Your task to perform on an android device: Search for pizza restaurants on Maps Image 0: 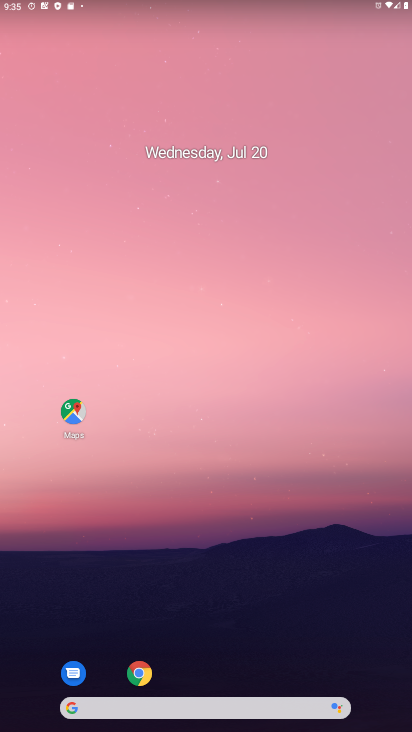
Step 0: drag from (227, 729) to (199, 292)
Your task to perform on an android device: Search for pizza restaurants on Maps Image 1: 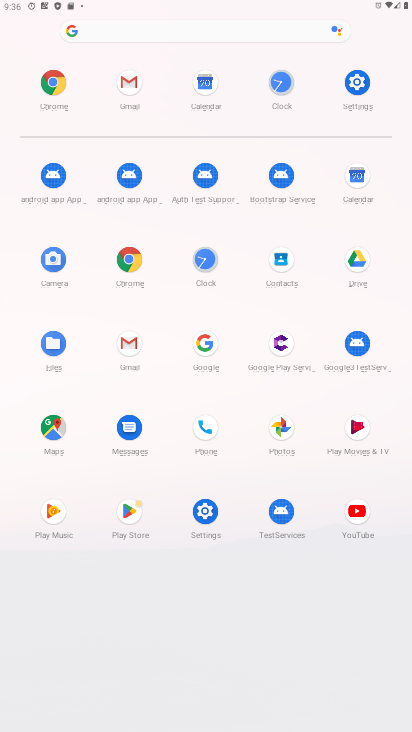
Step 1: click (51, 421)
Your task to perform on an android device: Search for pizza restaurants on Maps Image 2: 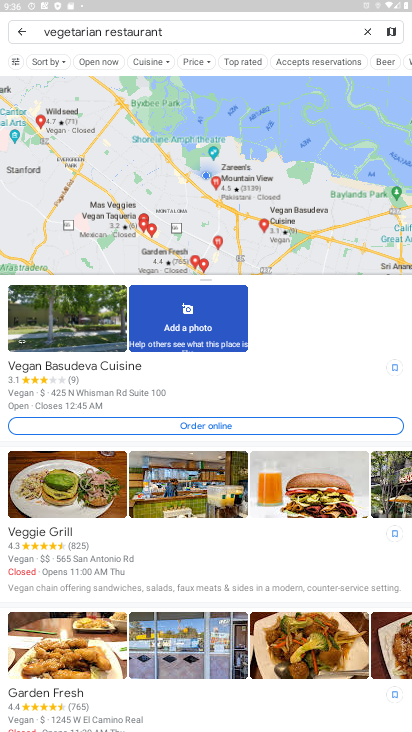
Step 2: click (366, 27)
Your task to perform on an android device: Search for pizza restaurants on Maps Image 3: 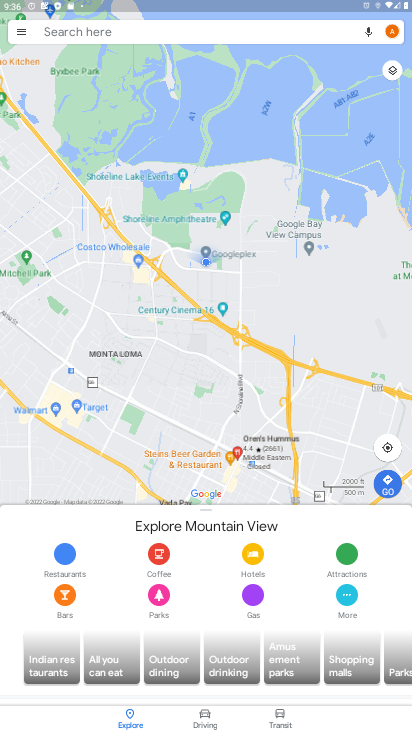
Step 3: click (158, 33)
Your task to perform on an android device: Search for pizza restaurants on Maps Image 4: 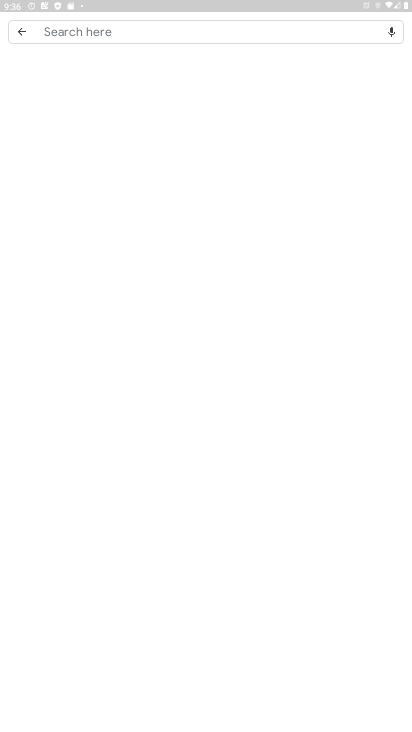
Step 4: click (171, 30)
Your task to perform on an android device: Search for pizza restaurants on Maps Image 5: 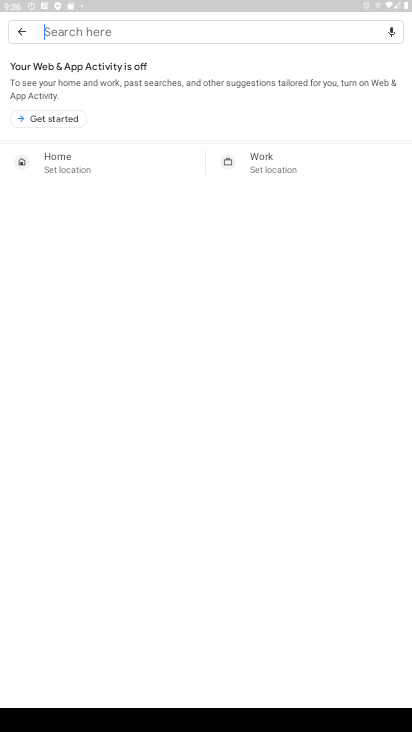
Step 5: type "seafood restaurants"
Your task to perform on an android device: Search for pizza restaurants on Maps Image 6: 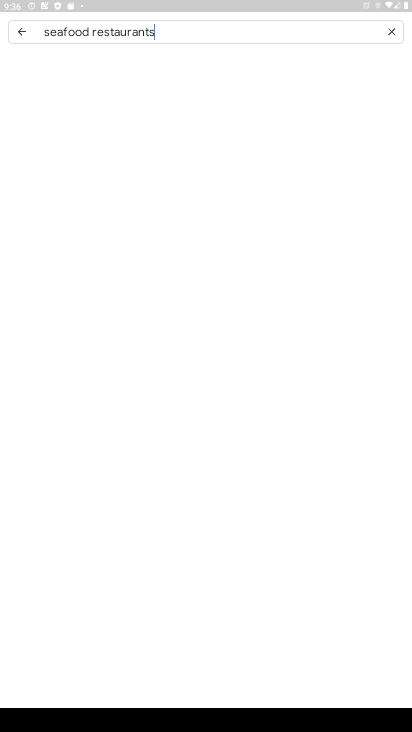
Step 6: type ""
Your task to perform on an android device: Search for pizza restaurants on Maps Image 7: 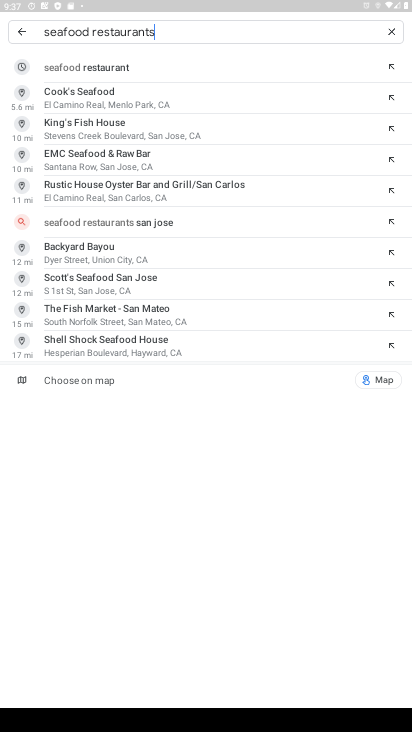
Step 7: click (92, 64)
Your task to perform on an android device: Search for pizza restaurants on Maps Image 8: 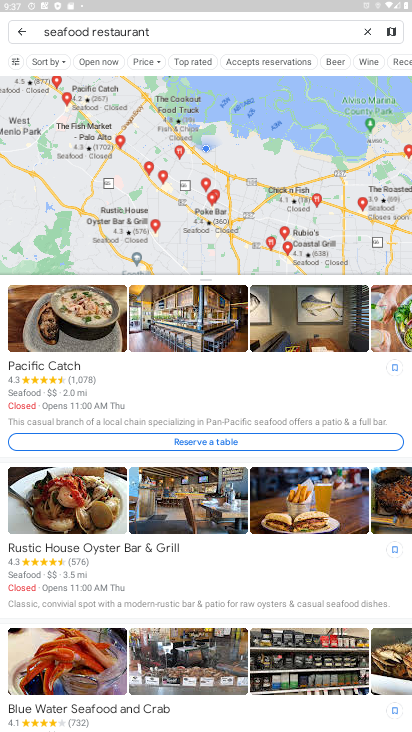
Step 8: task complete